Your task to perform on an android device: Go to battery settings Image 0: 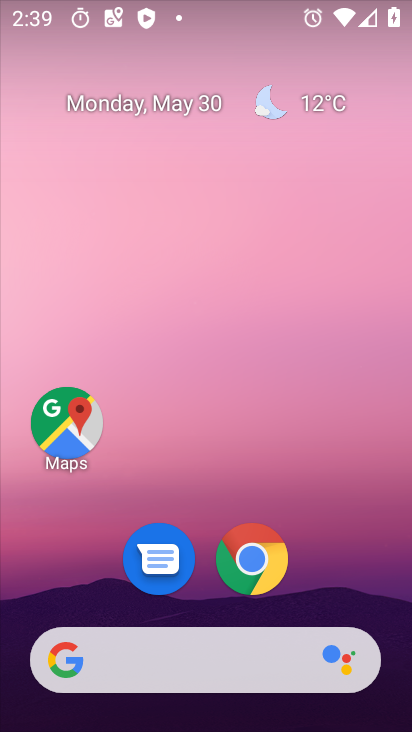
Step 0: drag from (202, 596) to (246, 90)
Your task to perform on an android device: Go to battery settings Image 1: 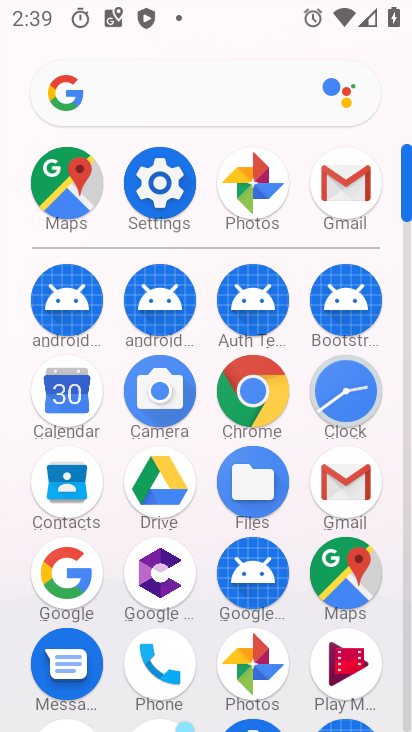
Step 1: click (166, 174)
Your task to perform on an android device: Go to battery settings Image 2: 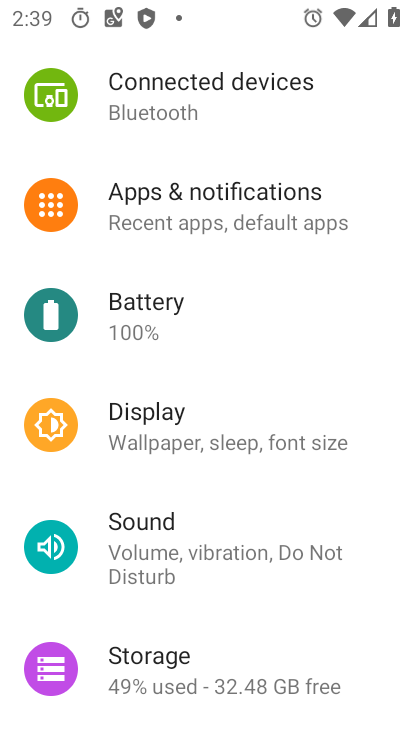
Step 2: click (159, 299)
Your task to perform on an android device: Go to battery settings Image 3: 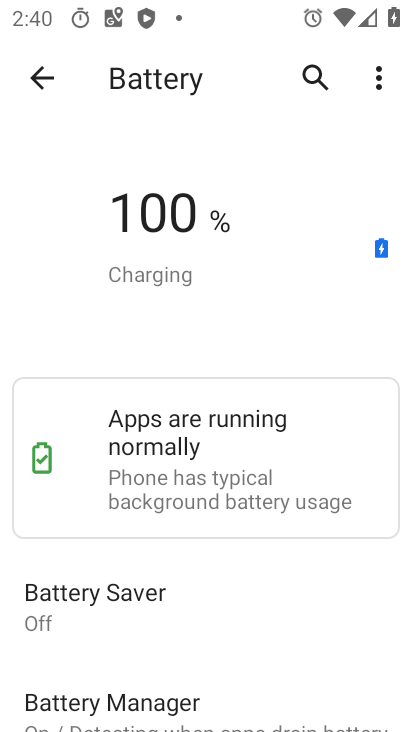
Step 3: task complete